Your task to perform on an android device: Go to battery settings Image 0: 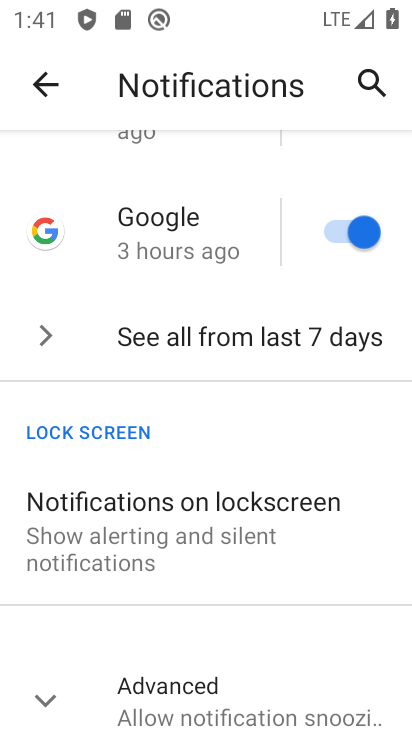
Step 0: press home button
Your task to perform on an android device: Go to battery settings Image 1: 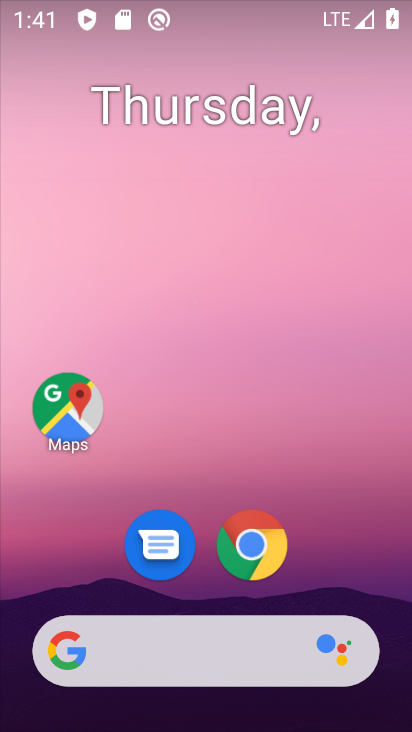
Step 1: drag from (220, 699) to (259, 138)
Your task to perform on an android device: Go to battery settings Image 2: 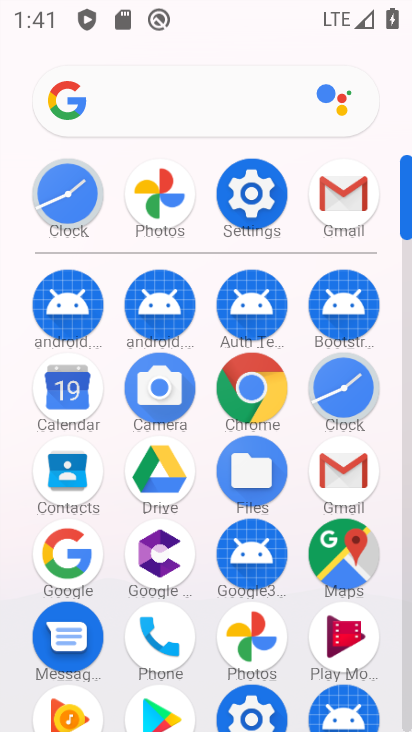
Step 2: click (249, 193)
Your task to perform on an android device: Go to battery settings Image 3: 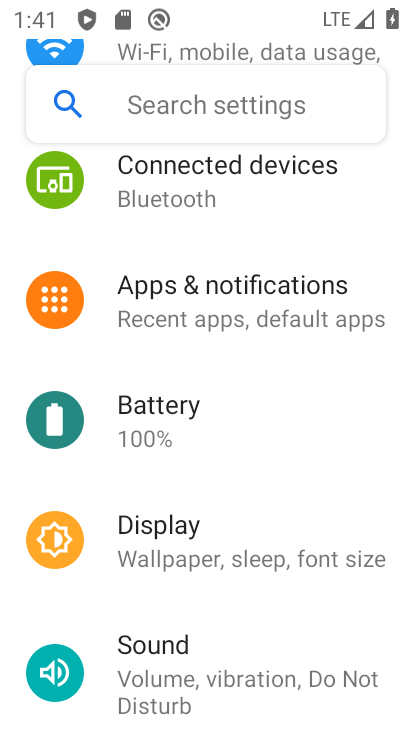
Step 3: click (178, 432)
Your task to perform on an android device: Go to battery settings Image 4: 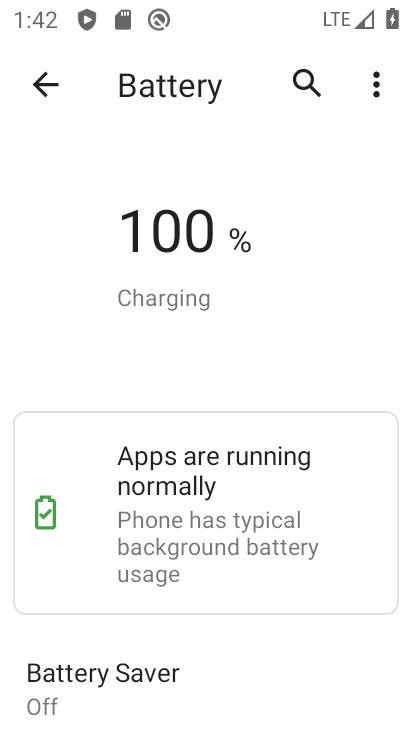
Step 4: task complete